Your task to perform on an android device: Open Google Chrome and click the shortcut for Amazon.com Image 0: 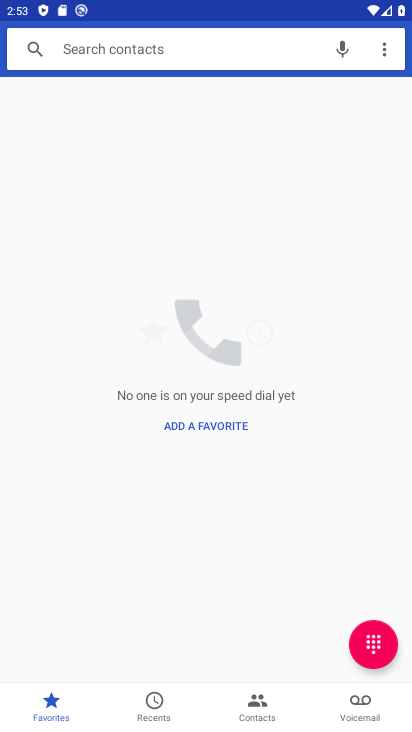
Step 0: press home button
Your task to perform on an android device: Open Google Chrome and click the shortcut for Amazon.com Image 1: 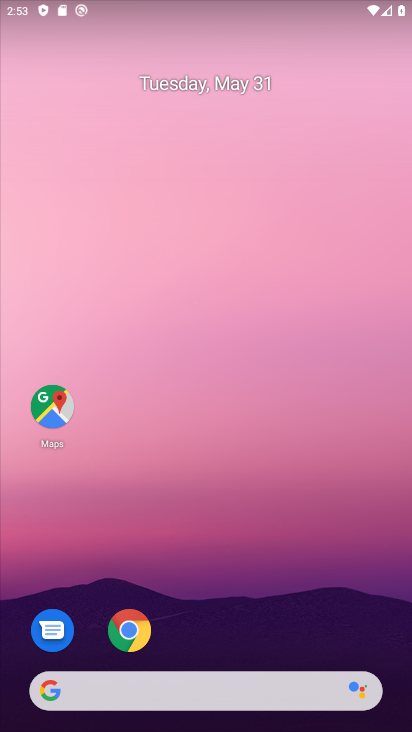
Step 1: click (134, 637)
Your task to perform on an android device: Open Google Chrome and click the shortcut for Amazon.com Image 2: 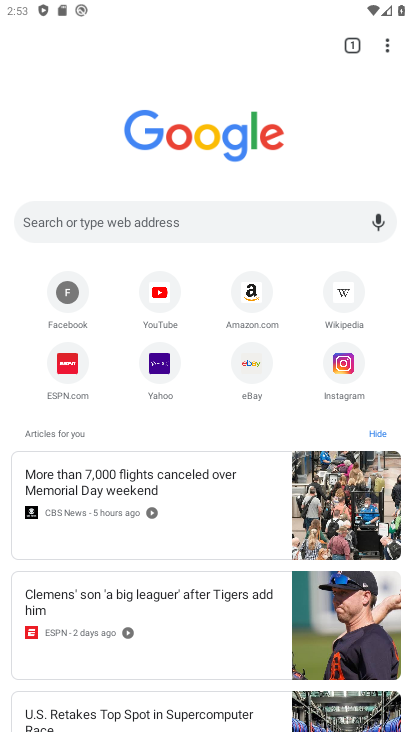
Step 2: click (246, 290)
Your task to perform on an android device: Open Google Chrome and click the shortcut for Amazon.com Image 3: 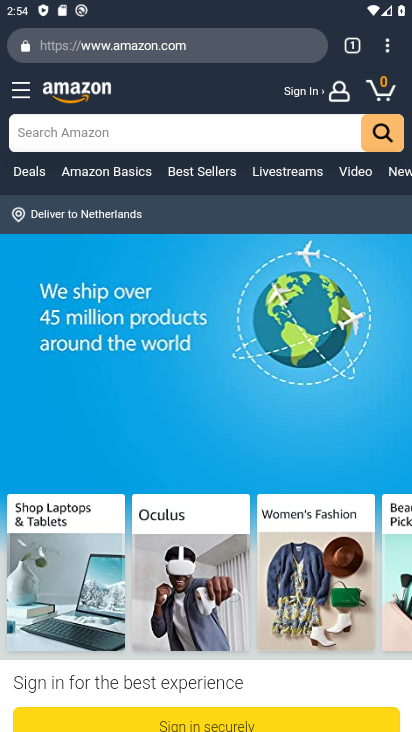
Step 3: task complete